Your task to perform on an android device: find snoozed emails in the gmail app Image 0: 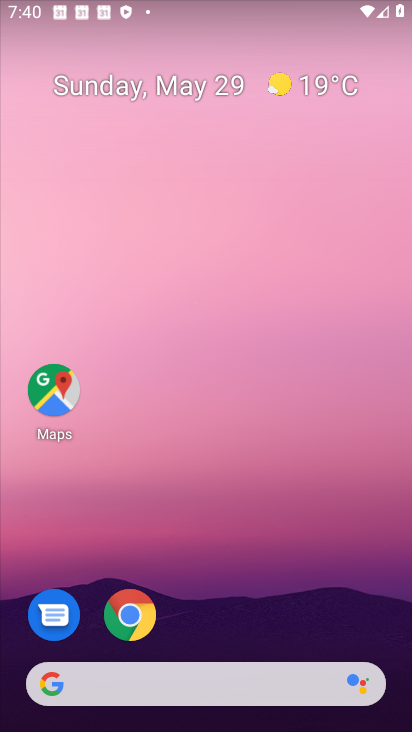
Step 0: drag from (131, 730) to (184, 25)
Your task to perform on an android device: find snoozed emails in the gmail app Image 1: 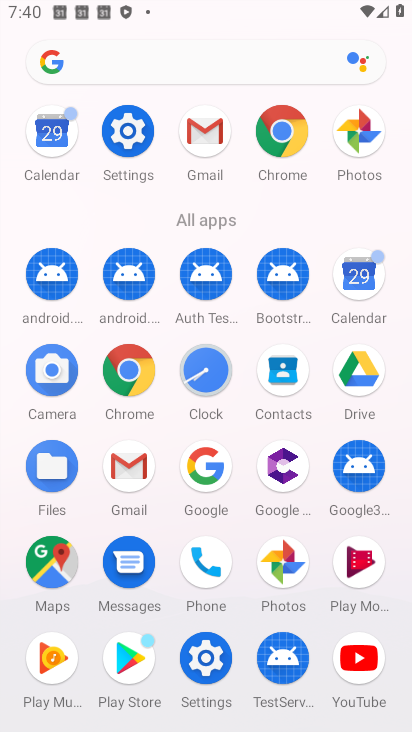
Step 1: click (220, 139)
Your task to perform on an android device: find snoozed emails in the gmail app Image 2: 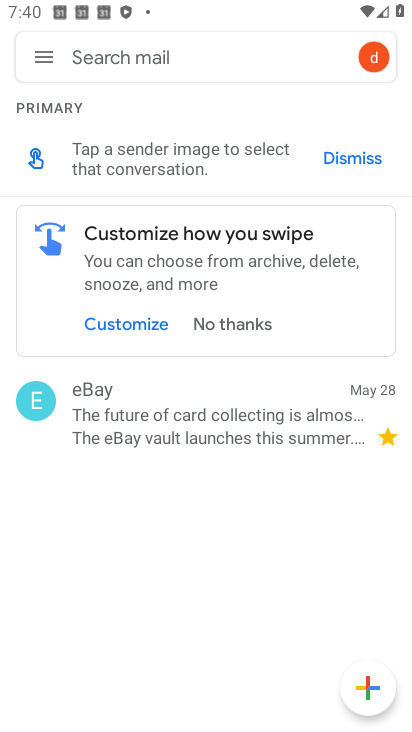
Step 2: click (41, 56)
Your task to perform on an android device: find snoozed emails in the gmail app Image 3: 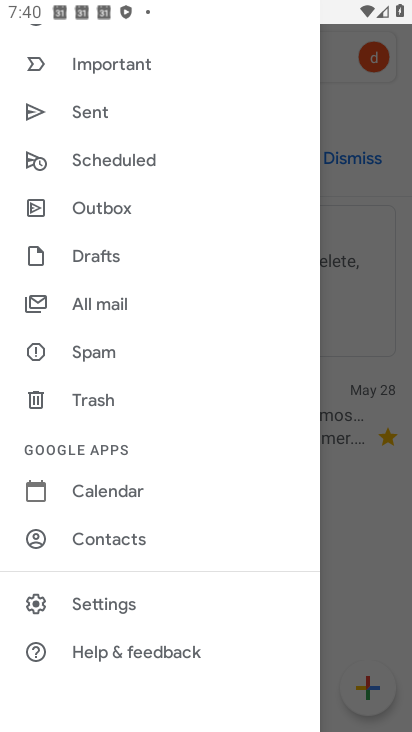
Step 3: drag from (147, 209) to (117, 547)
Your task to perform on an android device: find snoozed emails in the gmail app Image 4: 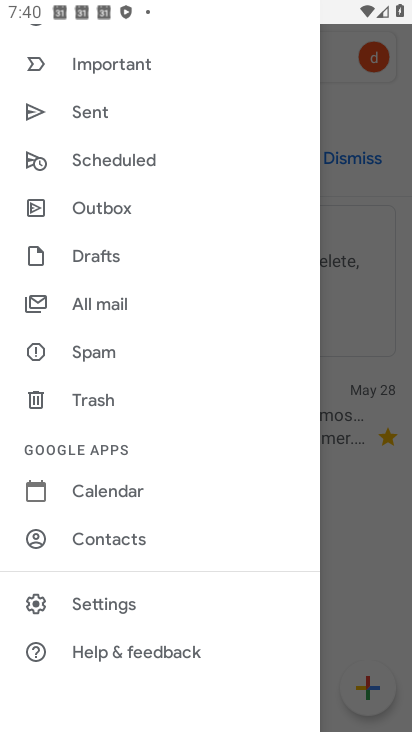
Step 4: drag from (282, 94) to (226, 538)
Your task to perform on an android device: find snoozed emails in the gmail app Image 5: 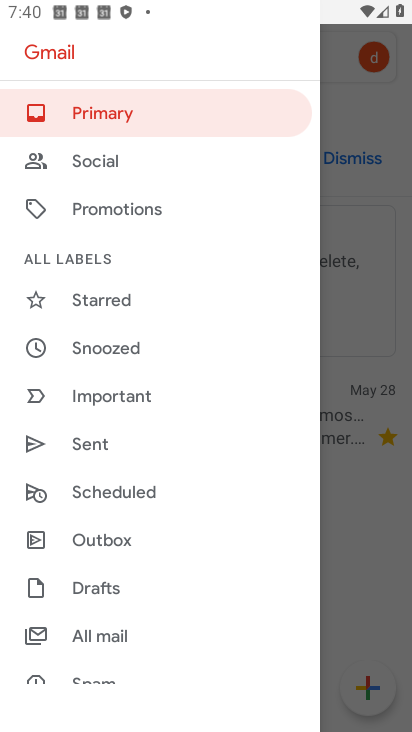
Step 5: click (136, 361)
Your task to perform on an android device: find snoozed emails in the gmail app Image 6: 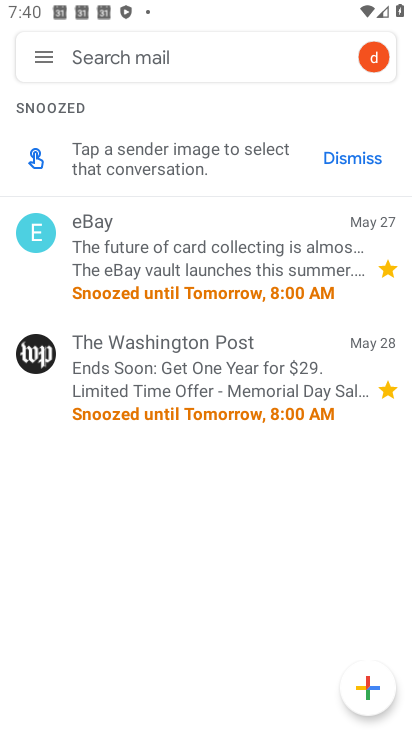
Step 6: click (191, 254)
Your task to perform on an android device: find snoozed emails in the gmail app Image 7: 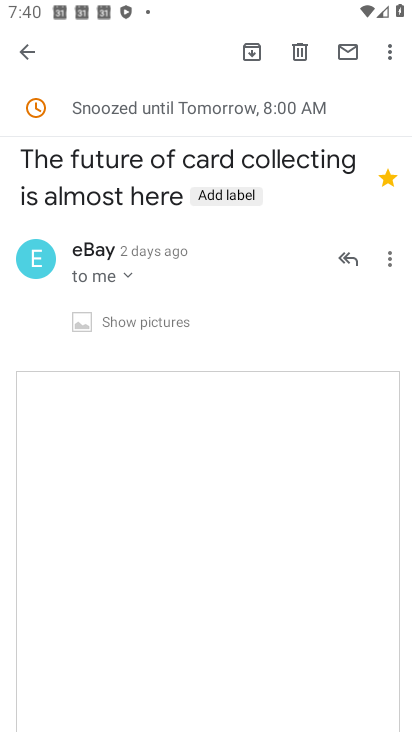
Step 7: click (30, 47)
Your task to perform on an android device: find snoozed emails in the gmail app Image 8: 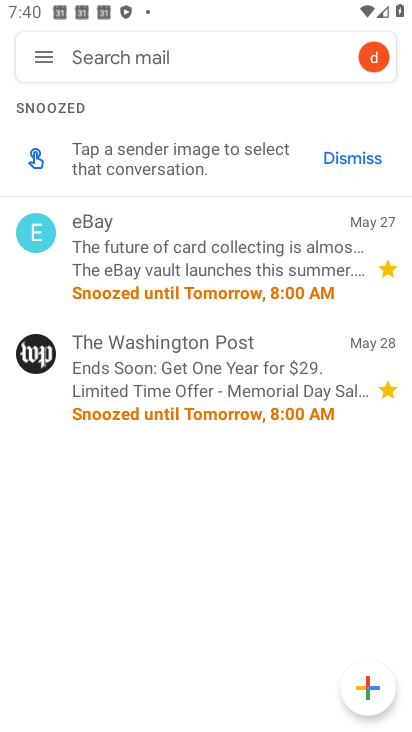
Step 8: click (188, 358)
Your task to perform on an android device: find snoozed emails in the gmail app Image 9: 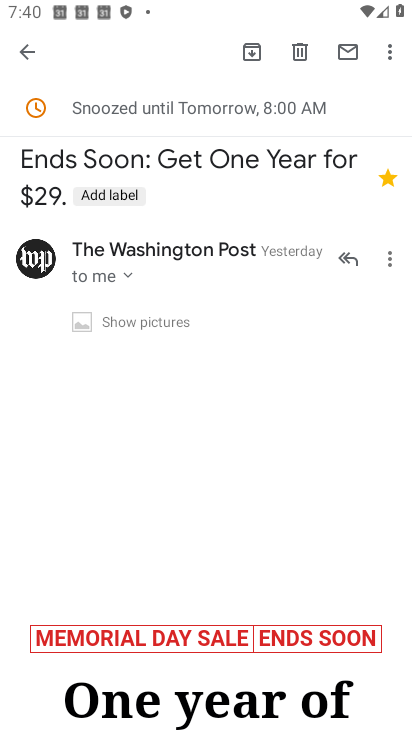
Step 9: click (41, 57)
Your task to perform on an android device: find snoozed emails in the gmail app Image 10: 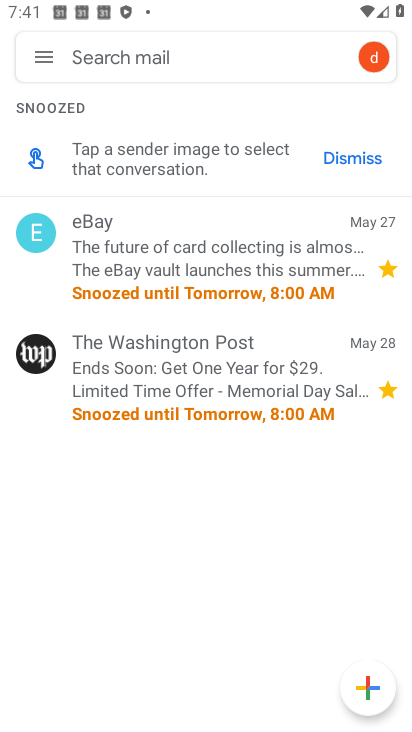
Step 10: task complete